Your task to perform on an android device: set the timer Image 0: 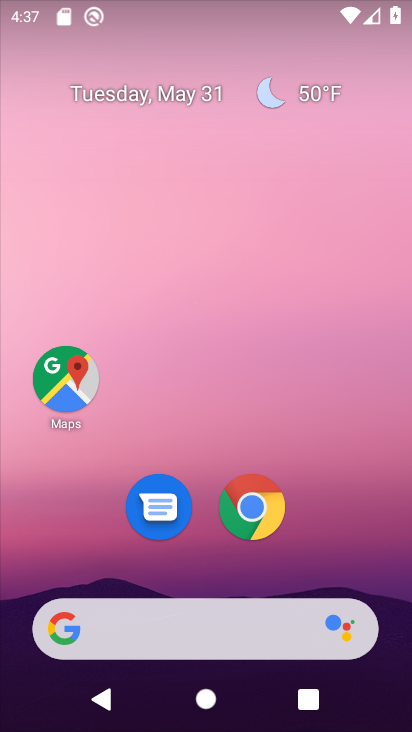
Step 0: drag from (299, 406) to (268, 17)
Your task to perform on an android device: set the timer Image 1: 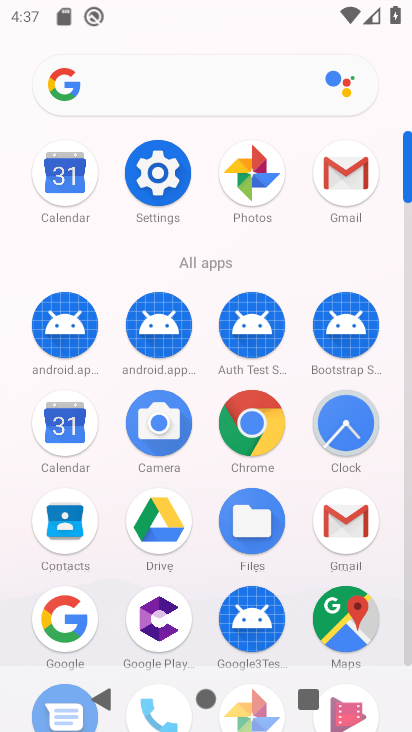
Step 1: click (340, 411)
Your task to perform on an android device: set the timer Image 2: 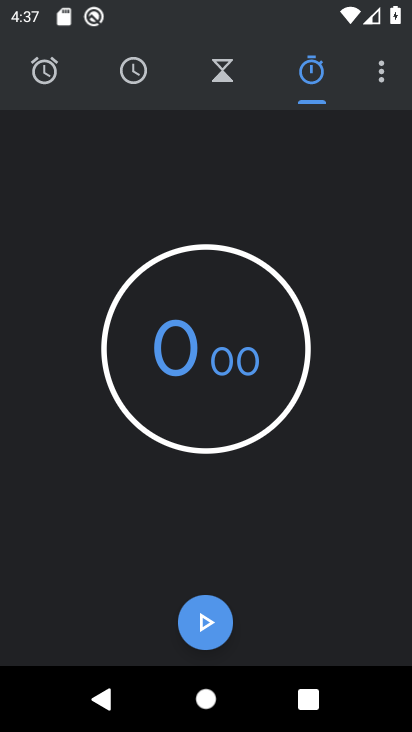
Step 2: click (217, 60)
Your task to perform on an android device: set the timer Image 3: 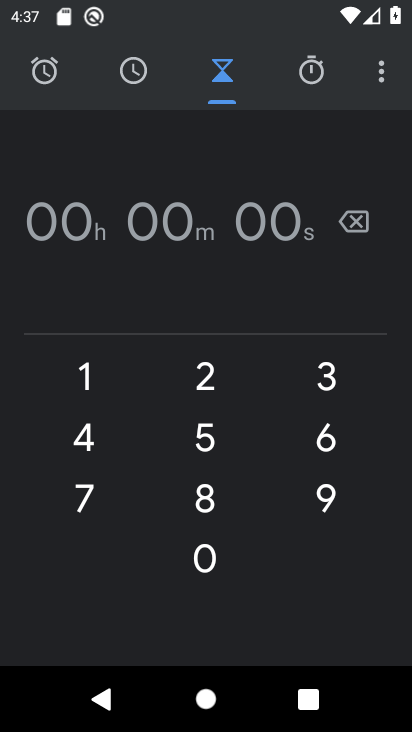
Step 3: click (92, 366)
Your task to perform on an android device: set the timer Image 4: 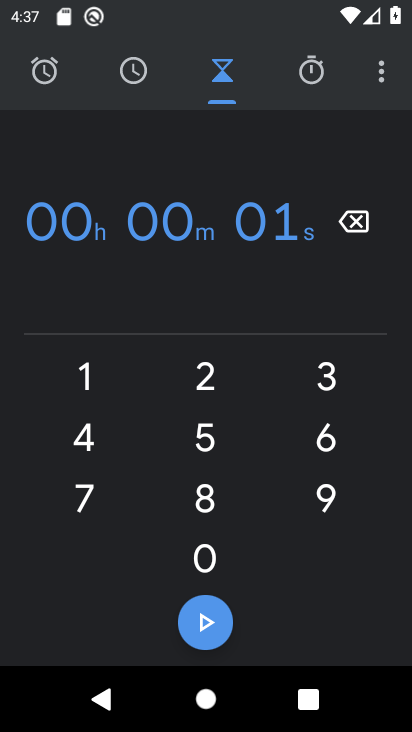
Step 4: click (85, 441)
Your task to perform on an android device: set the timer Image 5: 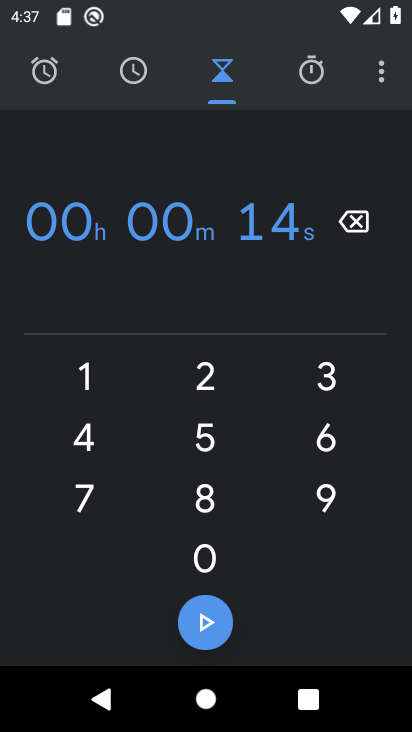
Step 5: click (88, 481)
Your task to perform on an android device: set the timer Image 6: 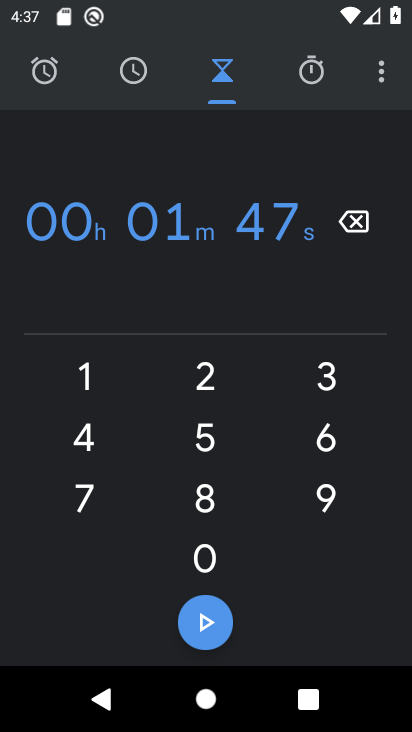
Step 6: task complete